Your task to perform on an android device: snooze an email in the gmail app Image 0: 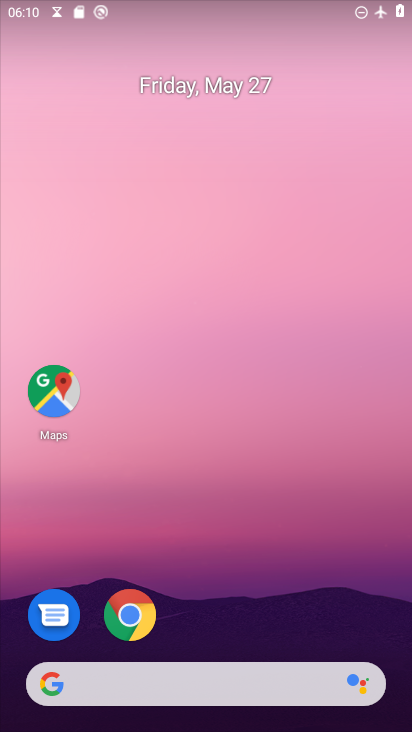
Step 0: drag from (283, 597) to (214, 3)
Your task to perform on an android device: snooze an email in the gmail app Image 1: 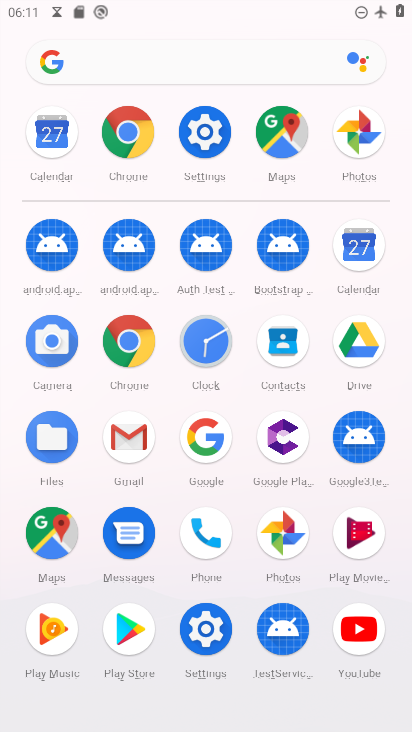
Step 1: click (126, 448)
Your task to perform on an android device: snooze an email in the gmail app Image 2: 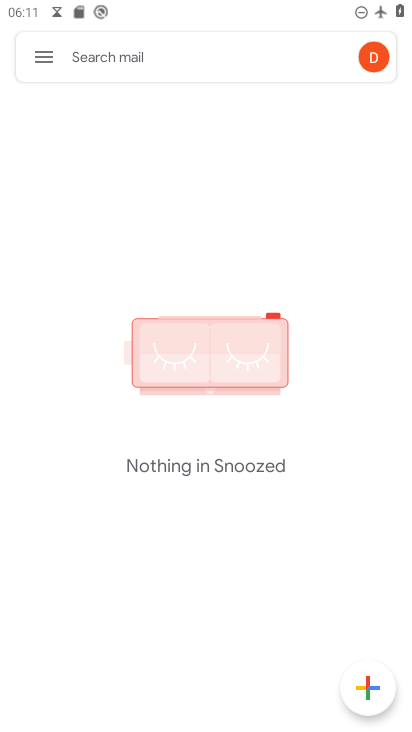
Step 2: task complete